Your task to perform on an android device: turn off smart reply in the gmail app Image 0: 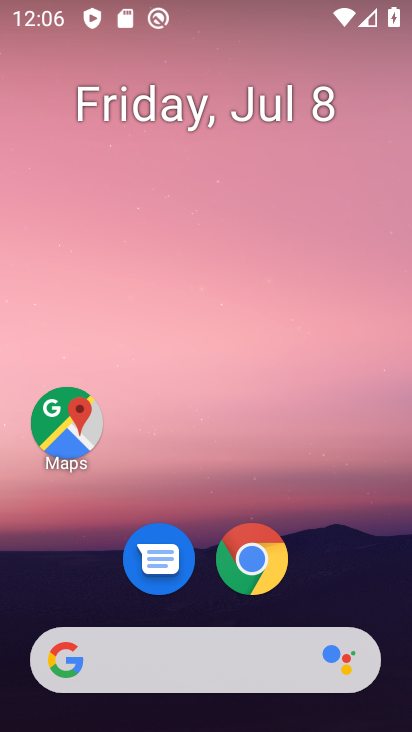
Step 0: drag from (228, 630) to (217, 0)
Your task to perform on an android device: turn off smart reply in the gmail app Image 1: 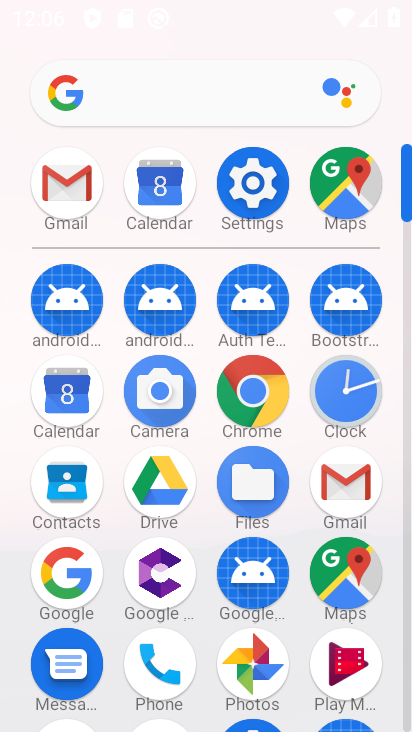
Step 1: click (358, 502)
Your task to perform on an android device: turn off smart reply in the gmail app Image 2: 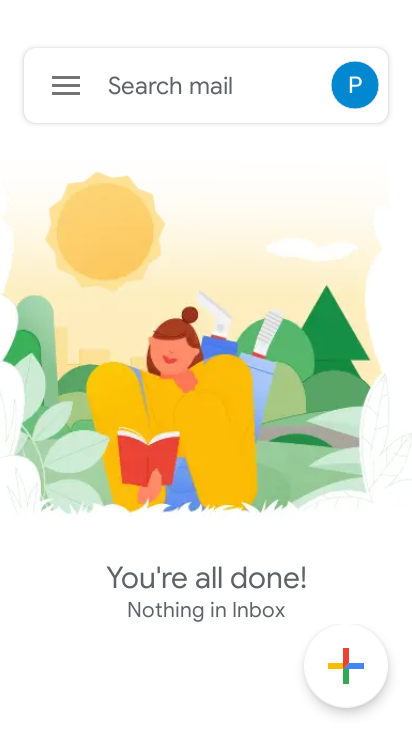
Step 2: click (44, 93)
Your task to perform on an android device: turn off smart reply in the gmail app Image 3: 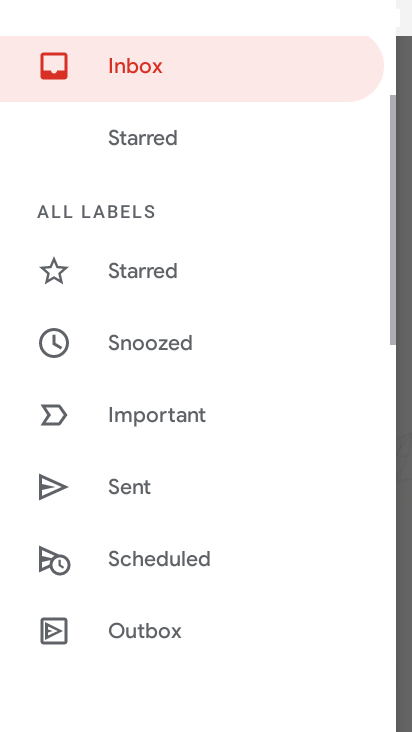
Step 3: drag from (131, 522) to (132, 132)
Your task to perform on an android device: turn off smart reply in the gmail app Image 4: 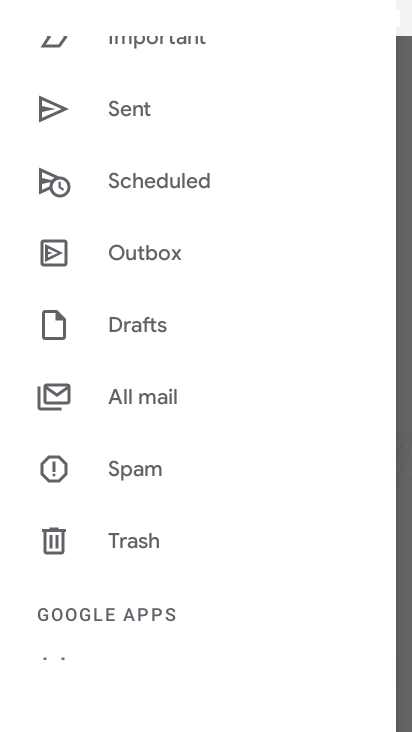
Step 4: drag from (221, 601) to (182, 184)
Your task to perform on an android device: turn off smart reply in the gmail app Image 5: 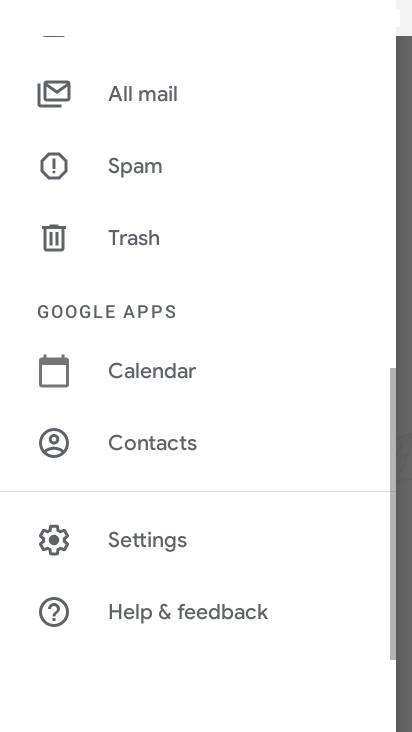
Step 5: click (153, 534)
Your task to perform on an android device: turn off smart reply in the gmail app Image 6: 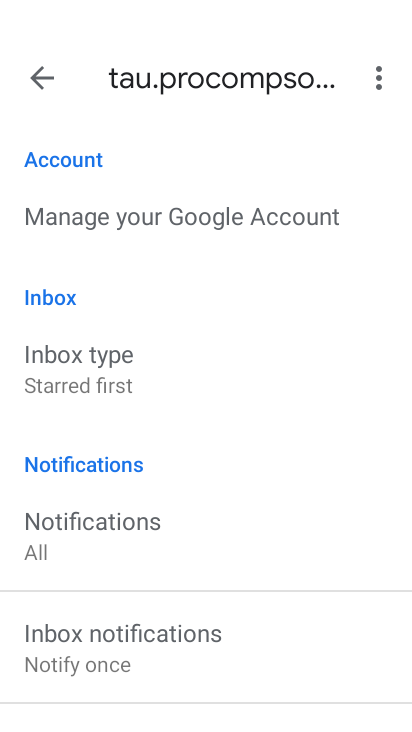
Step 6: drag from (153, 533) to (99, 142)
Your task to perform on an android device: turn off smart reply in the gmail app Image 7: 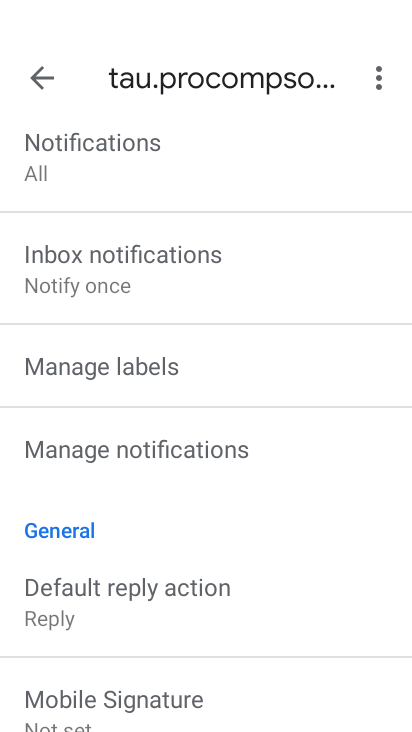
Step 7: drag from (122, 467) to (104, 319)
Your task to perform on an android device: turn off smart reply in the gmail app Image 8: 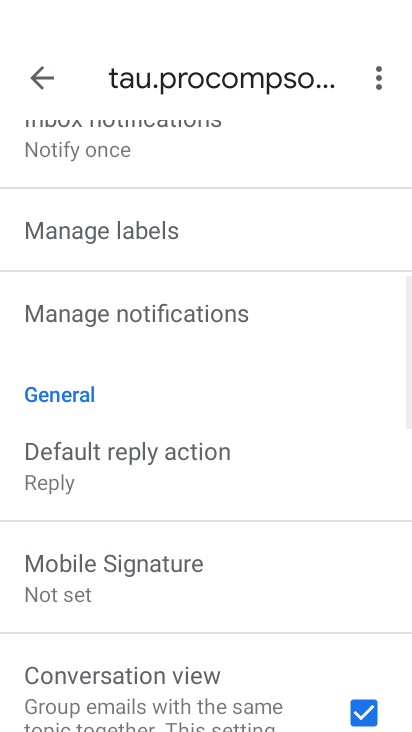
Step 8: drag from (153, 631) to (142, 247)
Your task to perform on an android device: turn off smart reply in the gmail app Image 9: 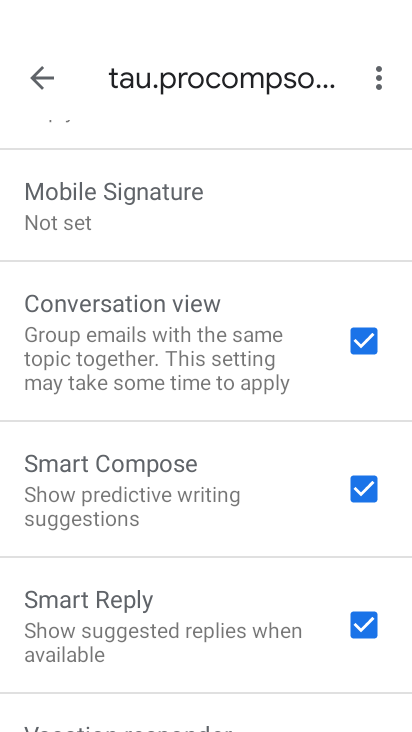
Step 9: click (368, 629)
Your task to perform on an android device: turn off smart reply in the gmail app Image 10: 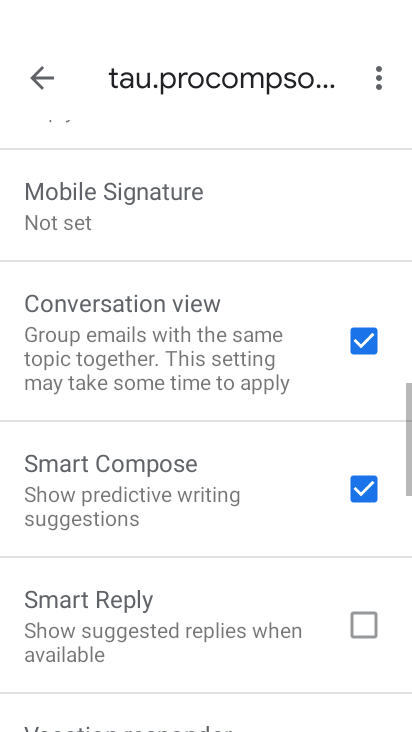
Step 10: task complete